Your task to perform on an android device: Show me productivity apps on the Play Store Image 0: 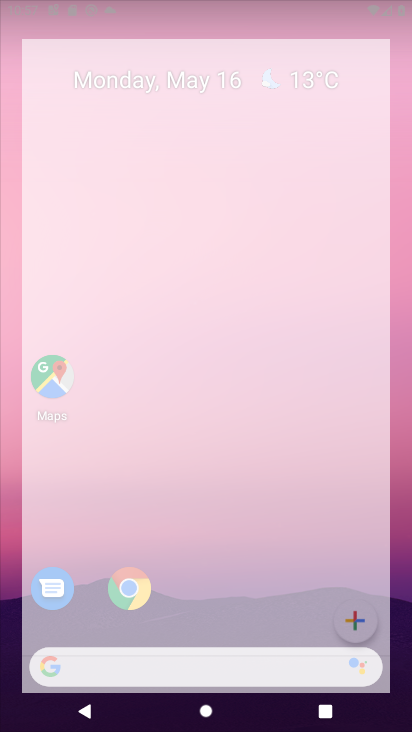
Step 0: press home button
Your task to perform on an android device: Show me productivity apps on the Play Store Image 1: 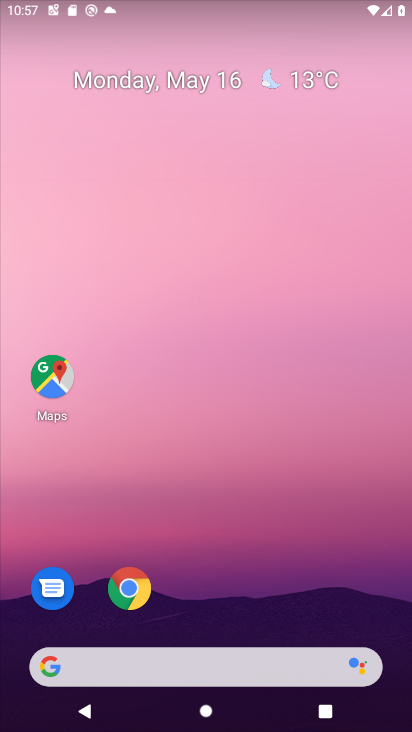
Step 1: drag from (205, 613) to (206, 36)
Your task to perform on an android device: Show me productivity apps on the Play Store Image 2: 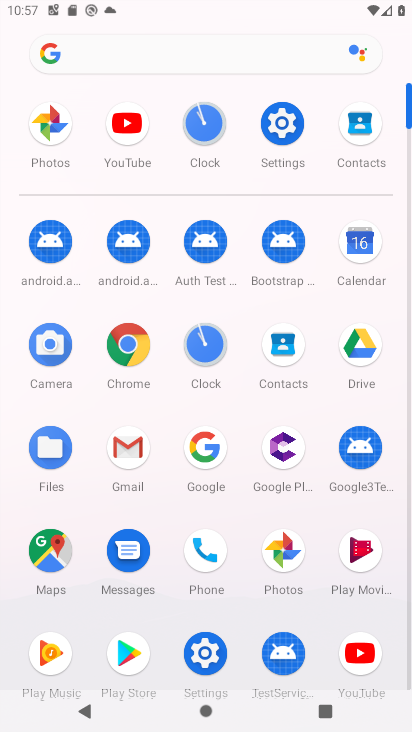
Step 2: click (123, 645)
Your task to perform on an android device: Show me productivity apps on the Play Store Image 3: 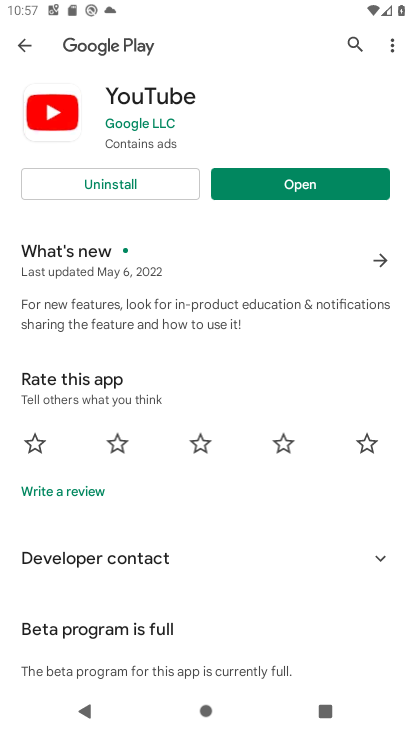
Step 3: click (22, 43)
Your task to perform on an android device: Show me productivity apps on the Play Store Image 4: 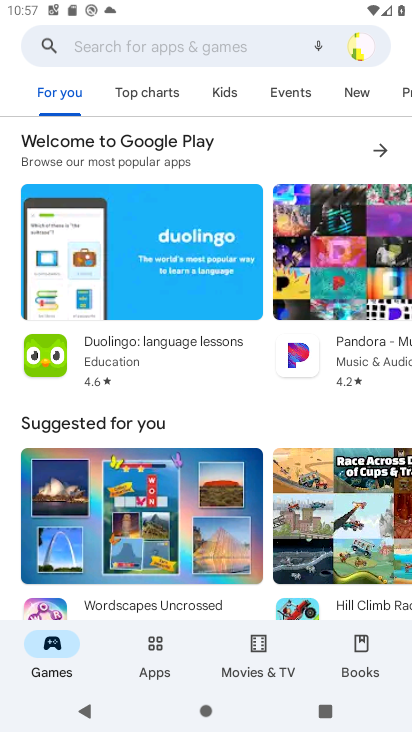
Step 4: click (153, 641)
Your task to perform on an android device: Show me productivity apps on the Play Store Image 5: 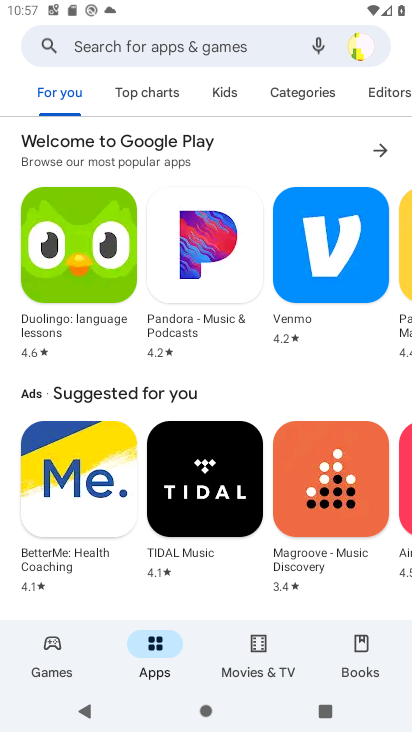
Step 5: click (304, 93)
Your task to perform on an android device: Show me productivity apps on the Play Store Image 6: 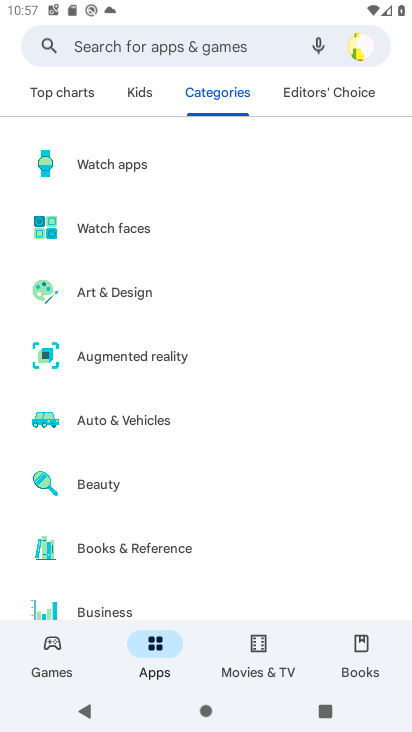
Step 6: drag from (152, 588) to (199, 10)
Your task to perform on an android device: Show me productivity apps on the Play Store Image 7: 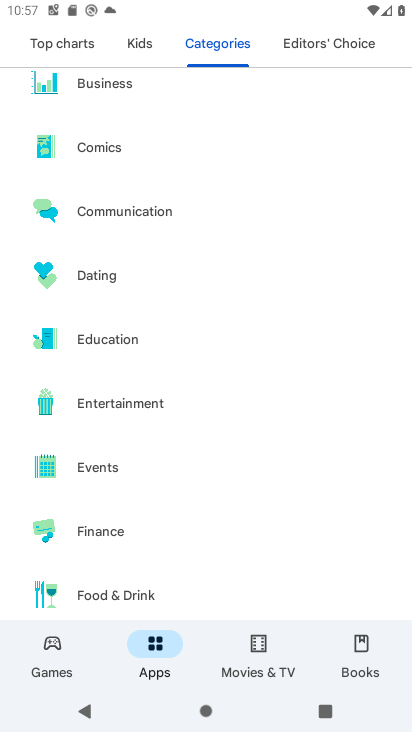
Step 7: drag from (166, 590) to (175, 36)
Your task to perform on an android device: Show me productivity apps on the Play Store Image 8: 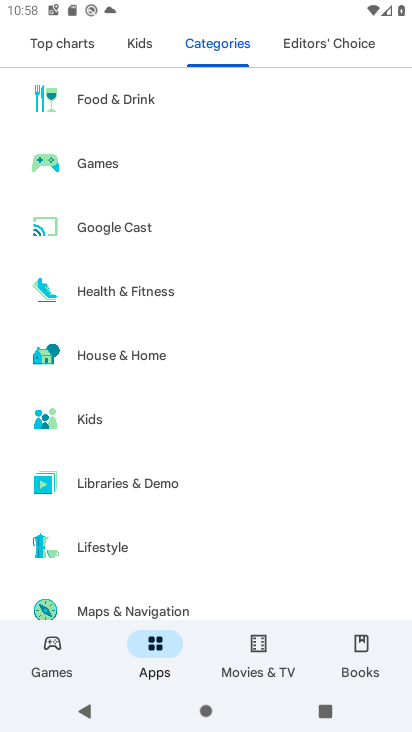
Step 8: drag from (190, 266) to (202, 27)
Your task to perform on an android device: Show me productivity apps on the Play Store Image 9: 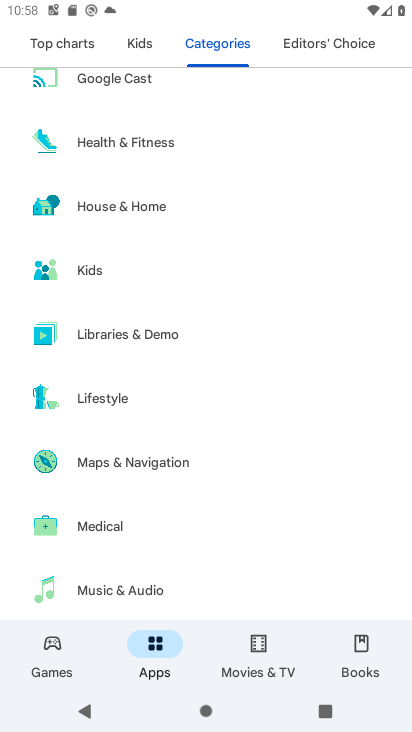
Step 9: drag from (167, 596) to (181, 34)
Your task to perform on an android device: Show me productivity apps on the Play Store Image 10: 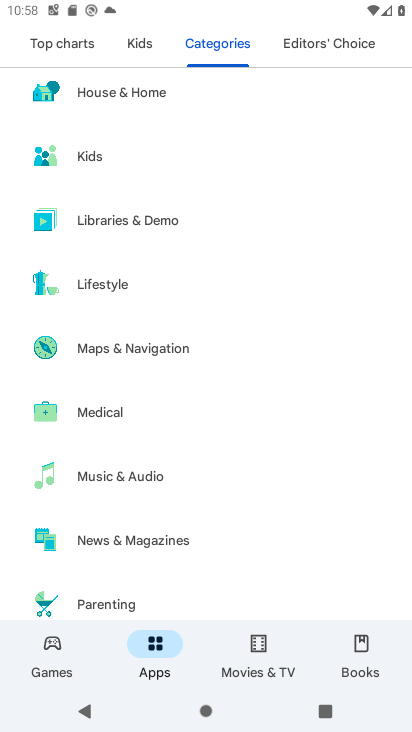
Step 10: drag from (167, 331) to (179, 38)
Your task to perform on an android device: Show me productivity apps on the Play Store Image 11: 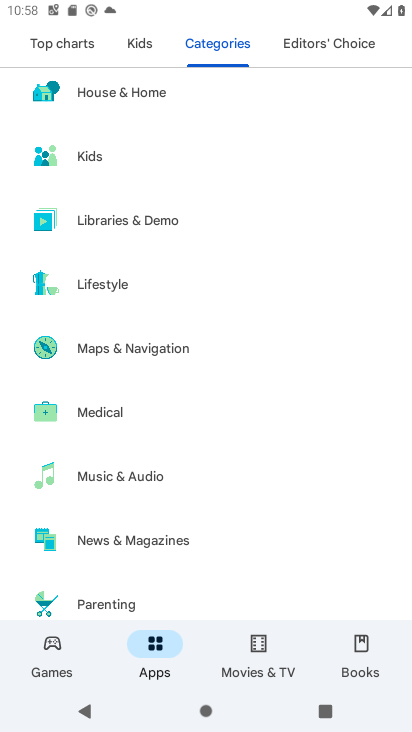
Step 11: drag from (177, 454) to (202, 143)
Your task to perform on an android device: Show me productivity apps on the Play Store Image 12: 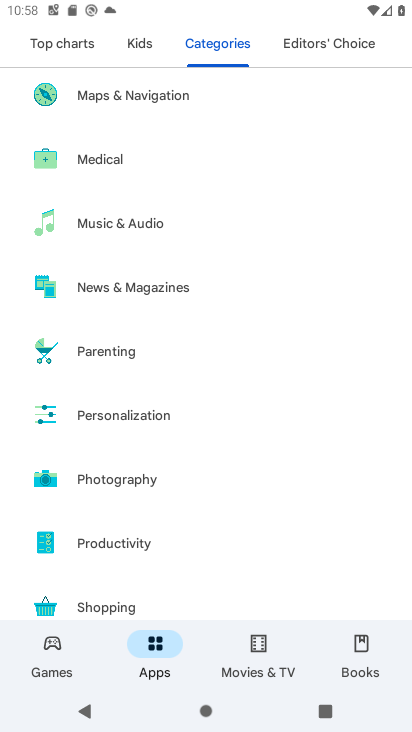
Step 12: click (159, 539)
Your task to perform on an android device: Show me productivity apps on the Play Store Image 13: 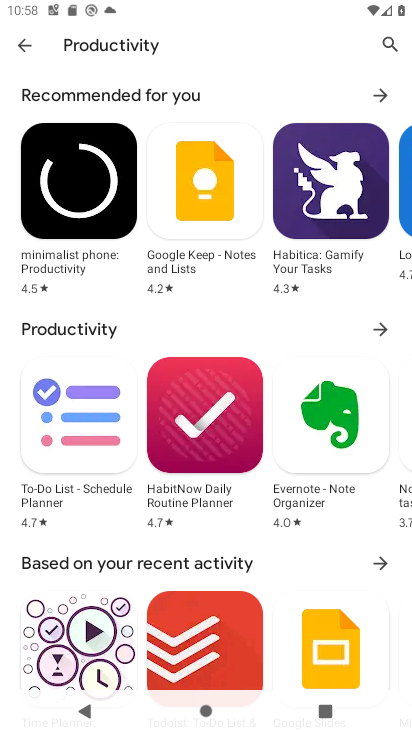
Step 13: click (379, 325)
Your task to perform on an android device: Show me productivity apps on the Play Store Image 14: 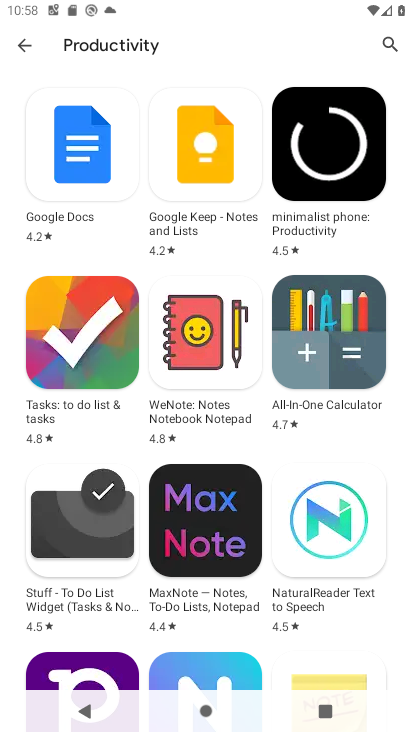
Step 14: task complete